Your task to perform on an android device: Open Google Image 0: 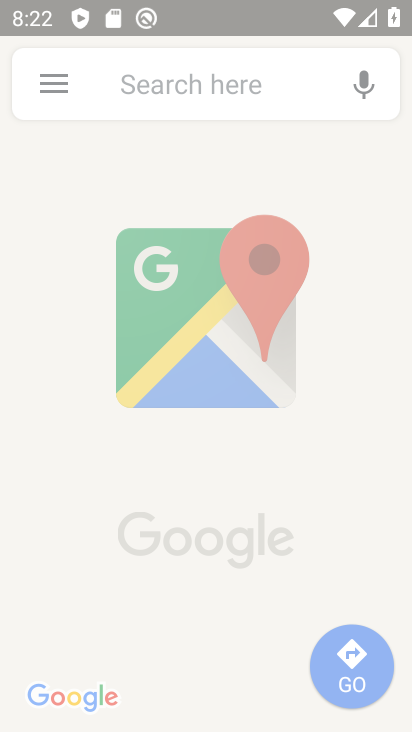
Step 0: drag from (220, 652) to (194, 185)
Your task to perform on an android device: Open Google Image 1: 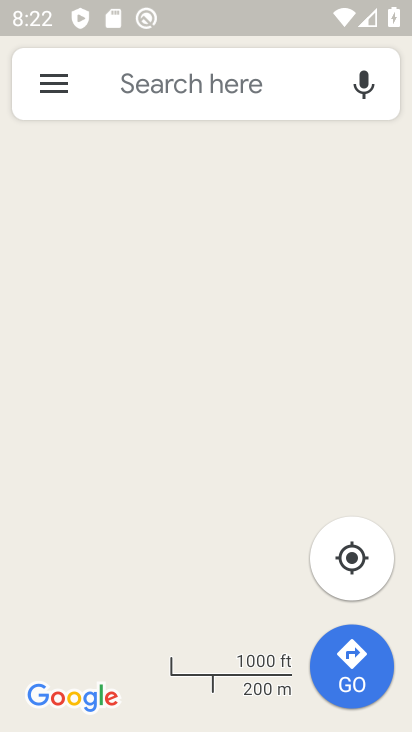
Step 1: press home button
Your task to perform on an android device: Open Google Image 2: 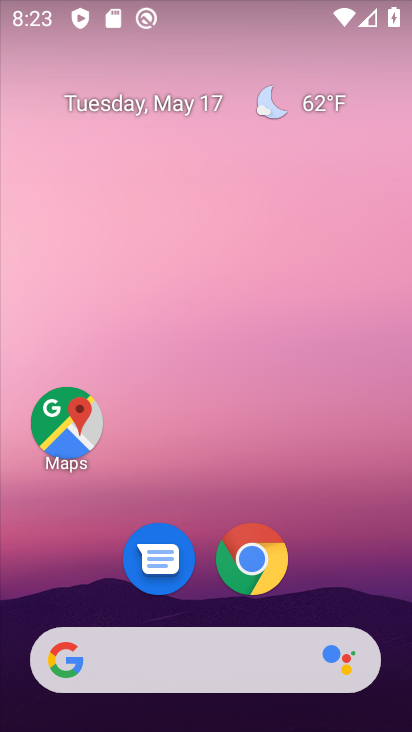
Step 2: drag from (228, 666) to (227, 43)
Your task to perform on an android device: Open Google Image 3: 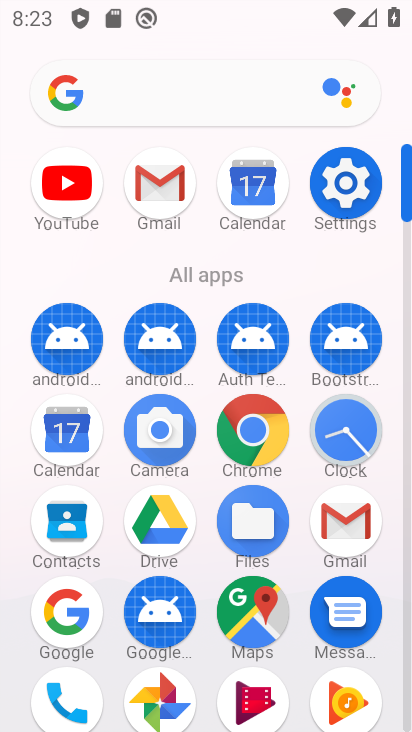
Step 3: click (78, 609)
Your task to perform on an android device: Open Google Image 4: 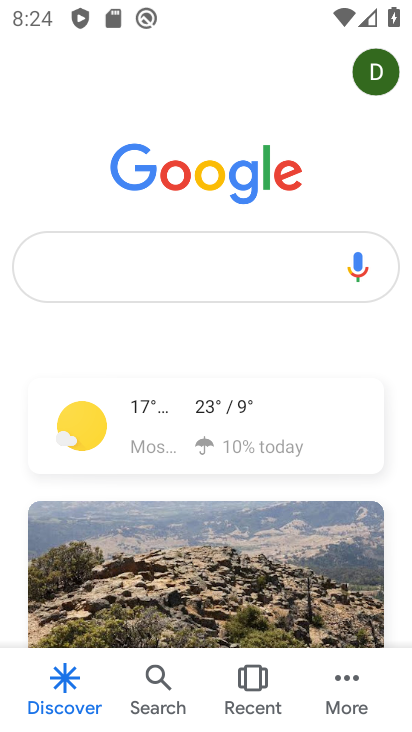
Step 4: task complete